Your task to perform on an android device: Open CNN.com Image 0: 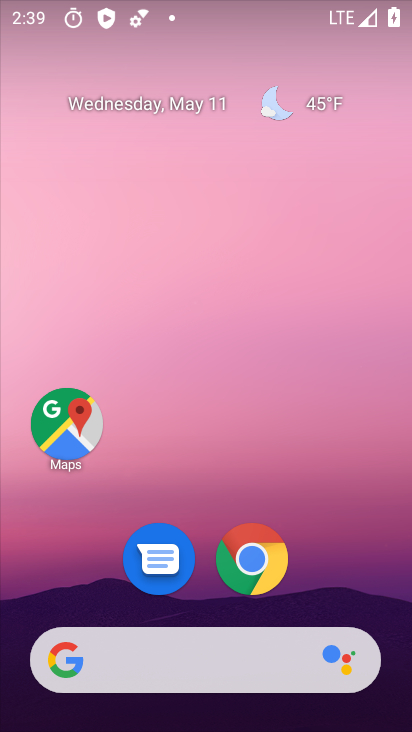
Step 0: click (264, 562)
Your task to perform on an android device: Open CNN.com Image 1: 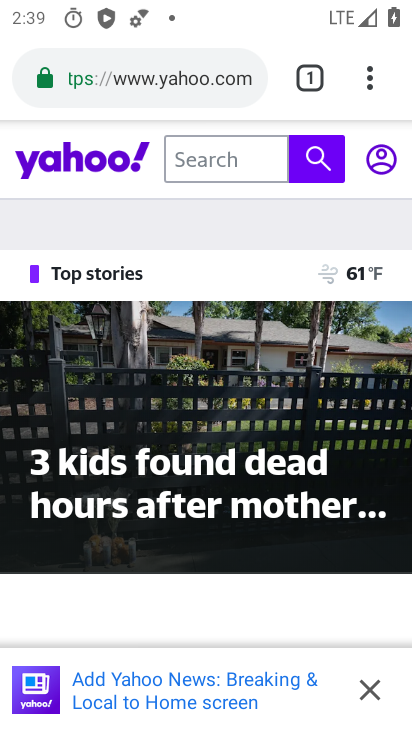
Step 1: click (304, 75)
Your task to perform on an android device: Open CNN.com Image 2: 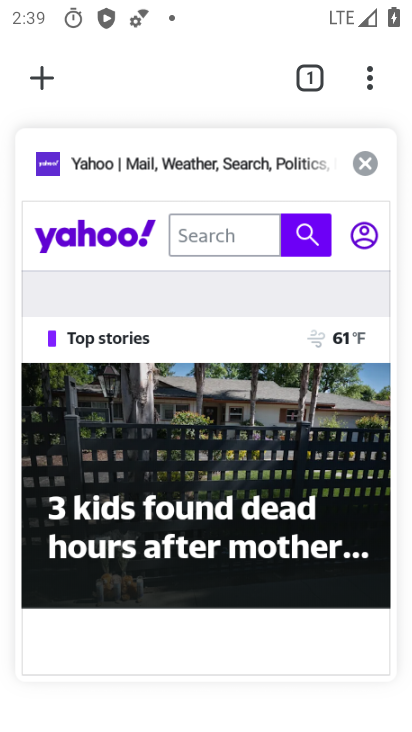
Step 2: click (40, 80)
Your task to perform on an android device: Open CNN.com Image 3: 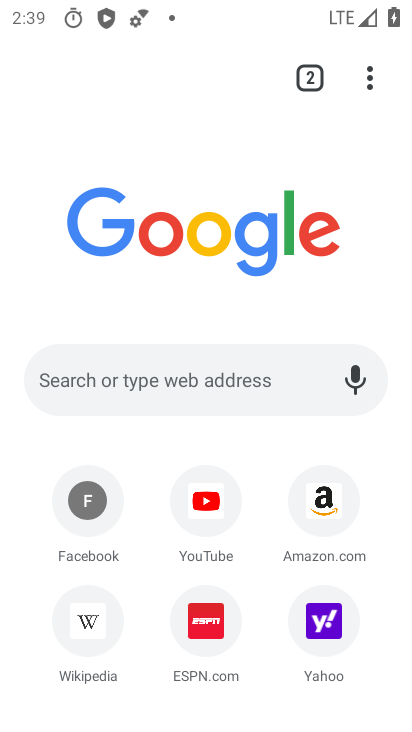
Step 3: click (215, 377)
Your task to perform on an android device: Open CNN.com Image 4: 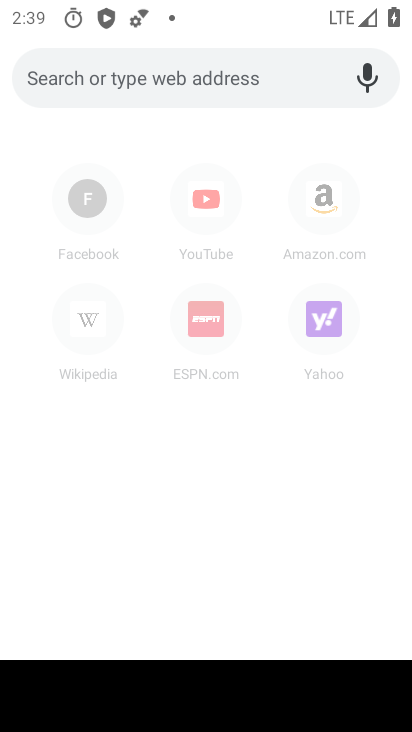
Step 4: type "CNN.com"
Your task to perform on an android device: Open CNN.com Image 5: 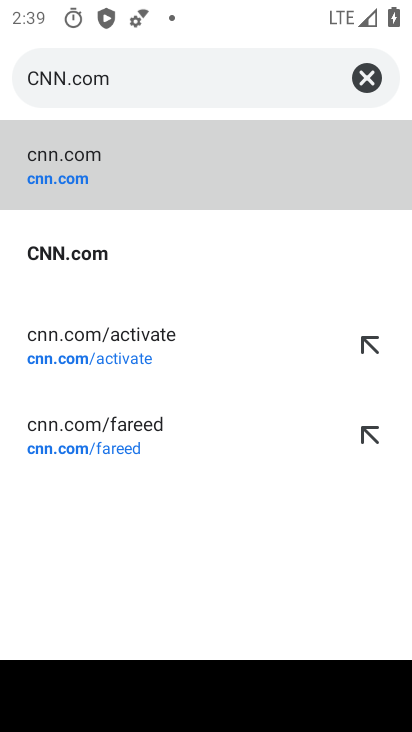
Step 5: click (188, 190)
Your task to perform on an android device: Open CNN.com Image 6: 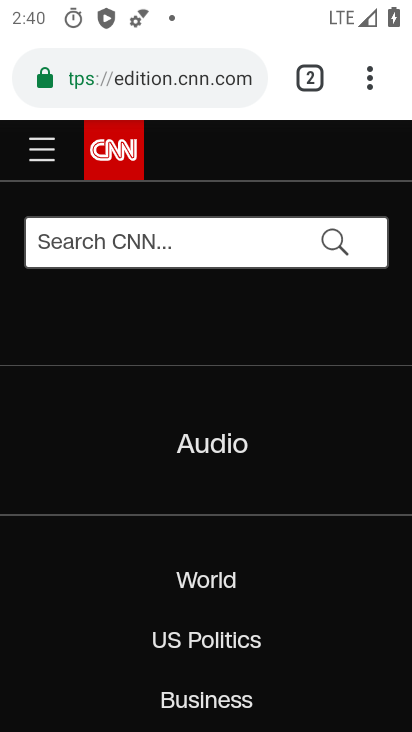
Step 6: task complete